Your task to perform on an android device: turn on wifi Image 0: 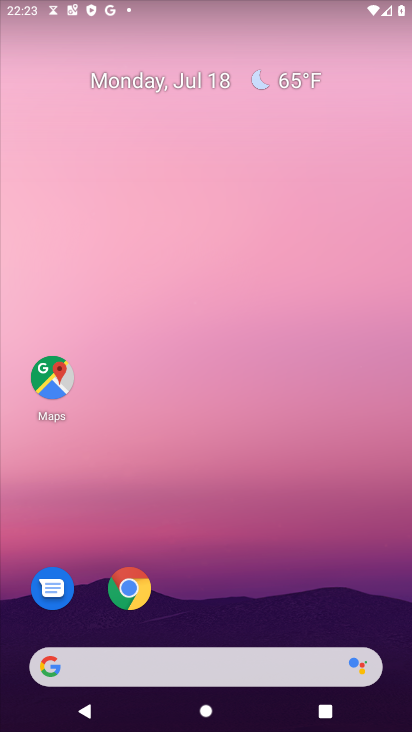
Step 0: drag from (209, 668) to (256, 244)
Your task to perform on an android device: turn on wifi Image 1: 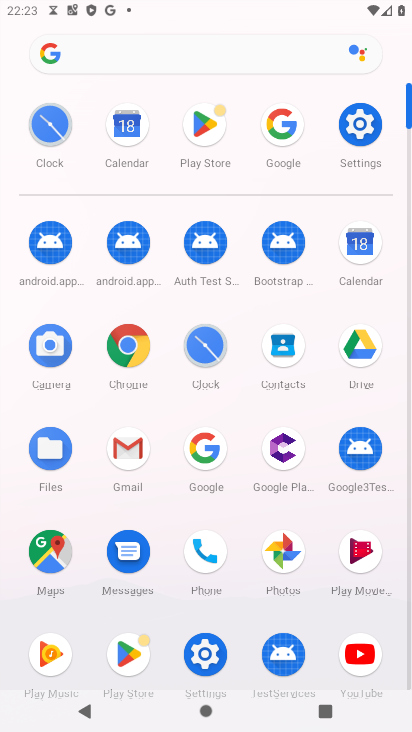
Step 1: click (359, 125)
Your task to perform on an android device: turn on wifi Image 2: 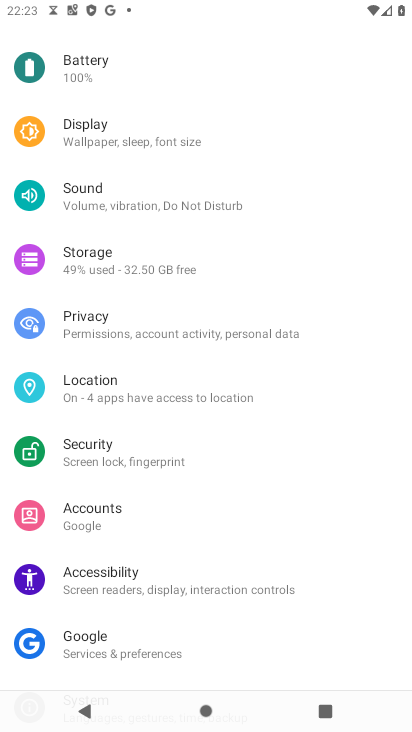
Step 2: drag from (145, 300) to (164, 426)
Your task to perform on an android device: turn on wifi Image 3: 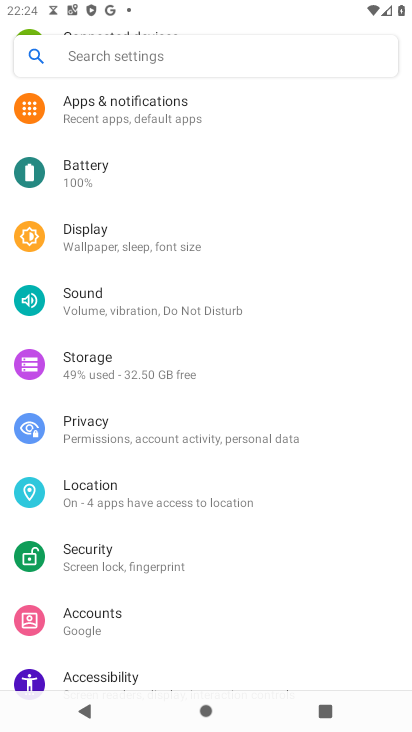
Step 3: drag from (185, 206) to (182, 345)
Your task to perform on an android device: turn on wifi Image 4: 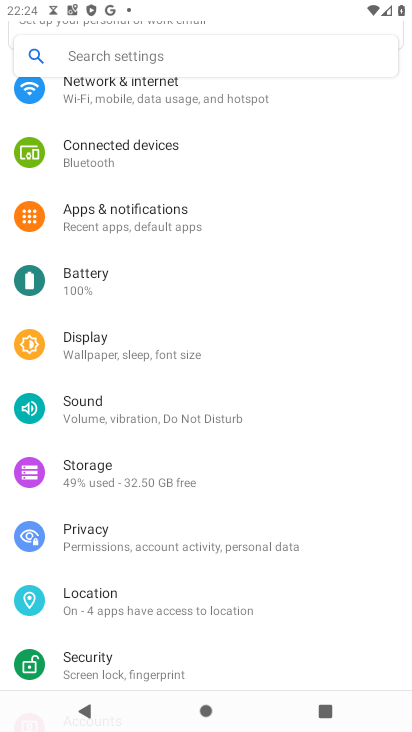
Step 4: drag from (192, 129) to (161, 303)
Your task to perform on an android device: turn on wifi Image 5: 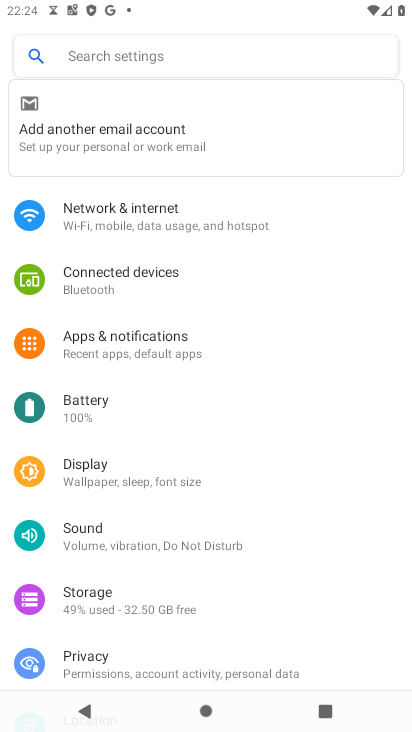
Step 5: click (152, 219)
Your task to perform on an android device: turn on wifi Image 6: 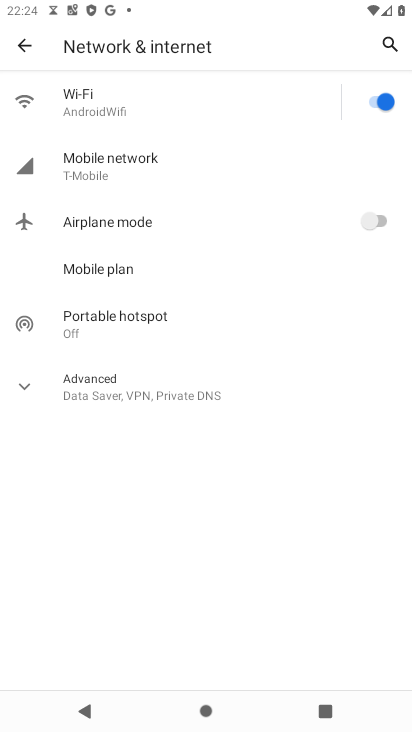
Step 6: task complete